Your task to perform on an android device: What is the news today? Image 0: 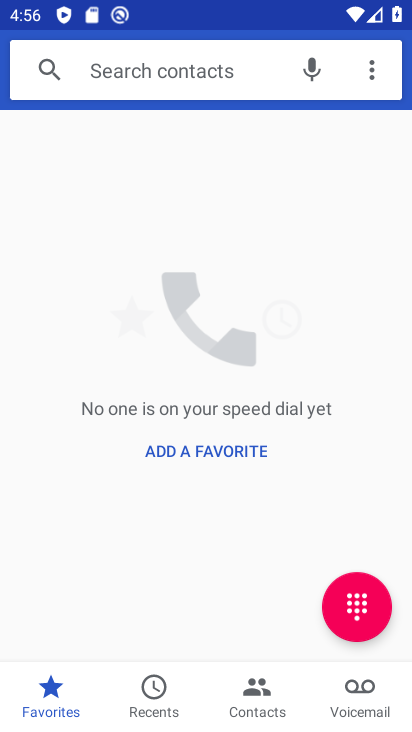
Step 0: press back button
Your task to perform on an android device: What is the news today? Image 1: 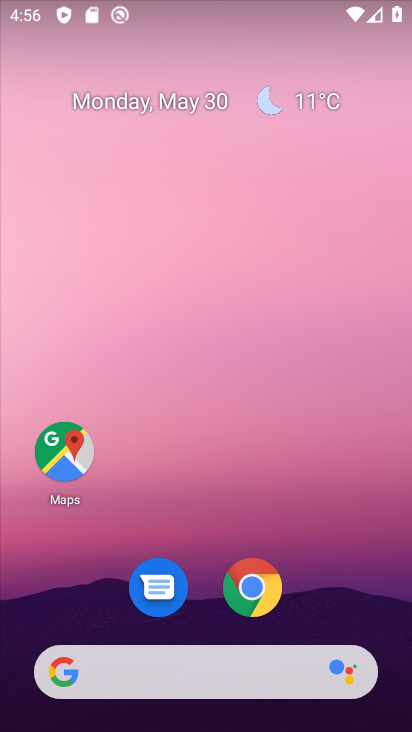
Step 1: drag from (338, 572) to (230, 26)
Your task to perform on an android device: What is the news today? Image 2: 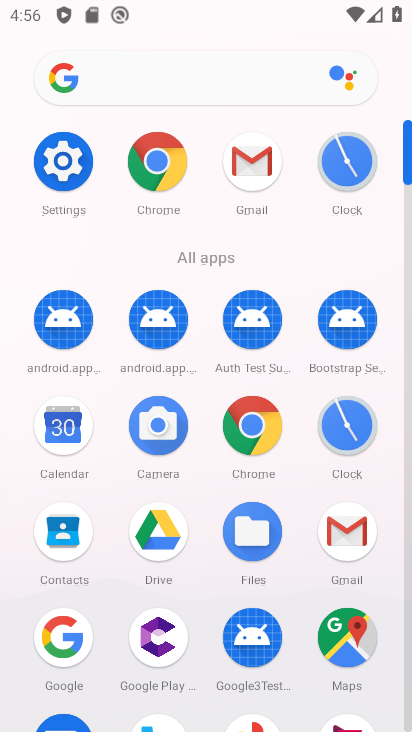
Step 2: click (4, 256)
Your task to perform on an android device: What is the news today? Image 3: 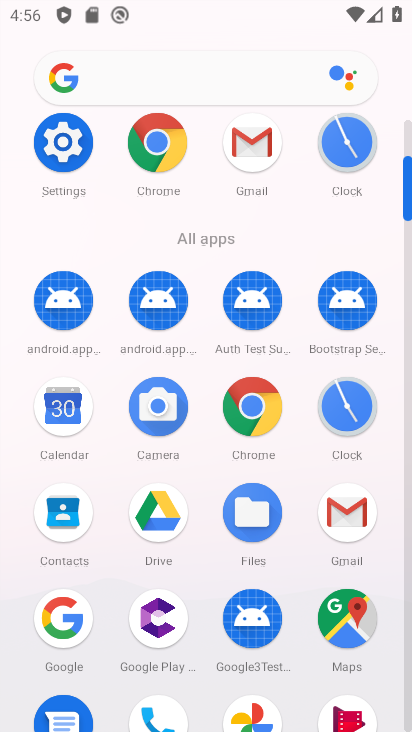
Step 3: click (254, 408)
Your task to perform on an android device: What is the news today? Image 4: 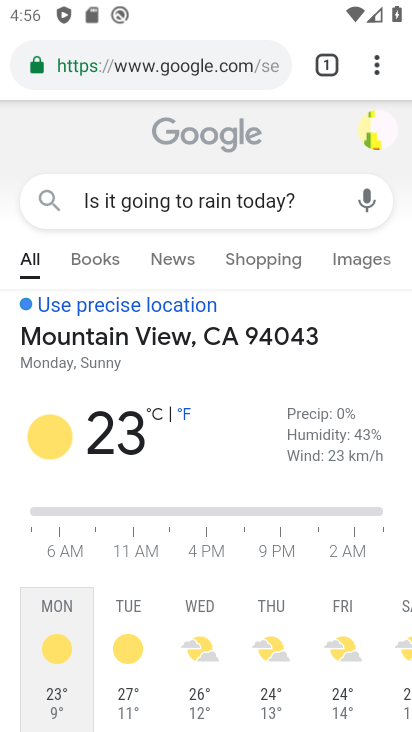
Step 4: click (159, 73)
Your task to perform on an android device: What is the news today? Image 5: 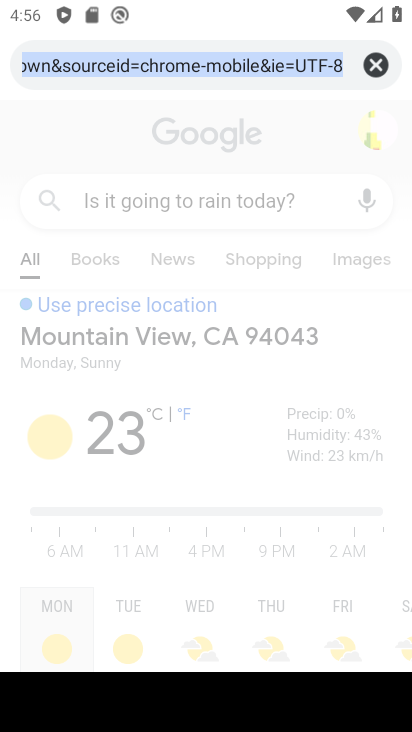
Step 5: click (362, 56)
Your task to perform on an android device: What is the news today? Image 6: 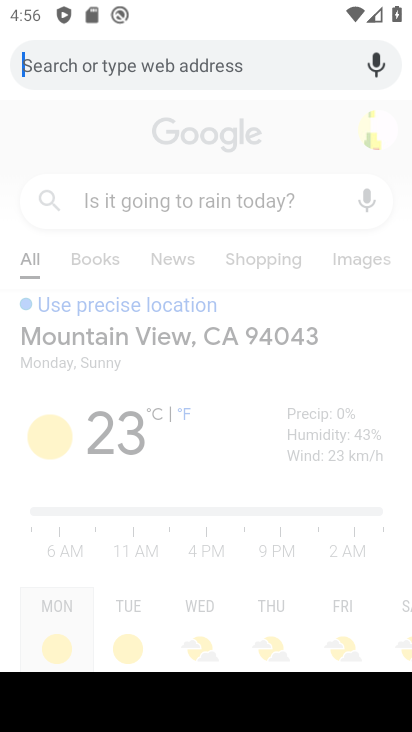
Step 6: click (120, 65)
Your task to perform on an android device: What is the news today? Image 7: 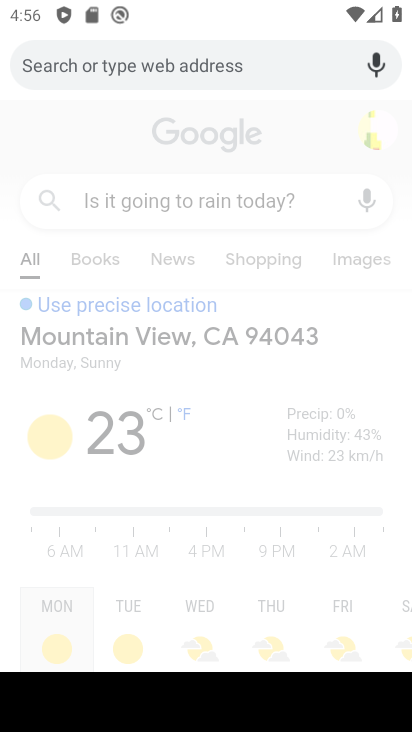
Step 7: type "What is the news today?"
Your task to perform on an android device: What is the news today? Image 8: 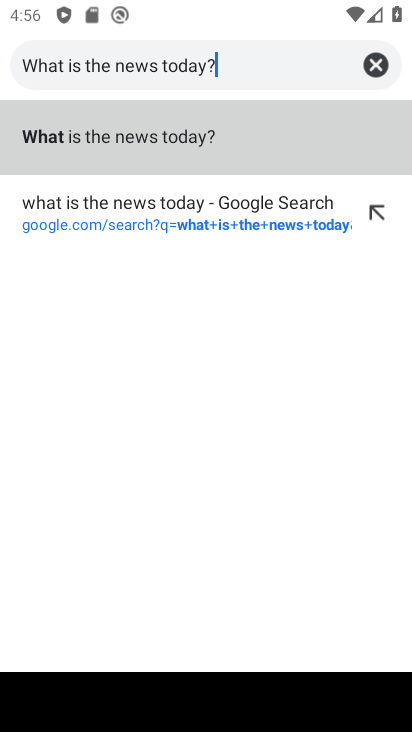
Step 8: type ""
Your task to perform on an android device: What is the news today? Image 9: 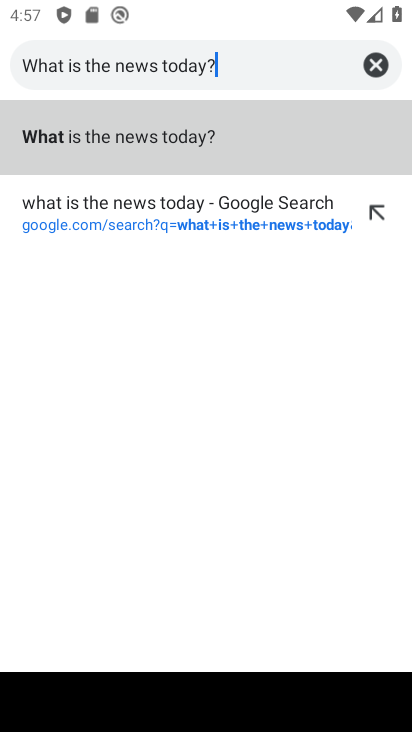
Step 9: click (150, 144)
Your task to perform on an android device: What is the news today? Image 10: 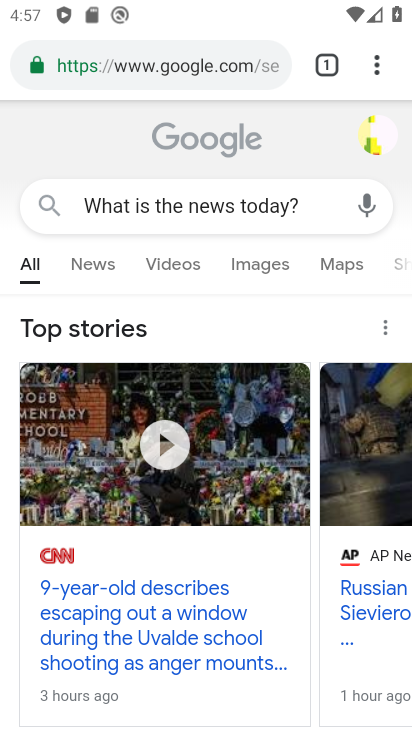
Step 10: click (331, 458)
Your task to perform on an android device: What is the news today? Image 11: 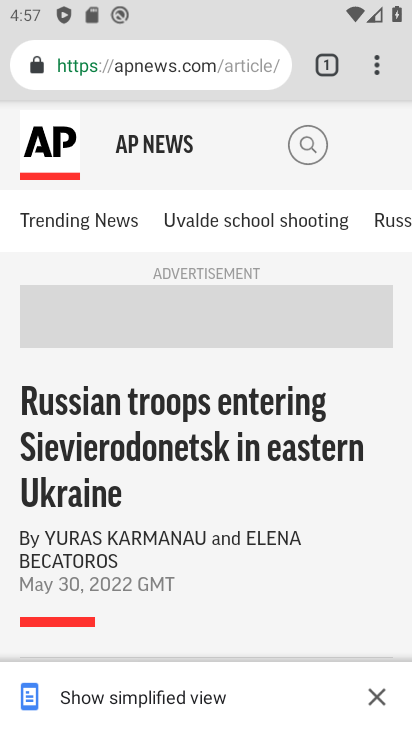
Step 11: task complete